Your task to perform on an android device: turn off airplane mode Image 0: 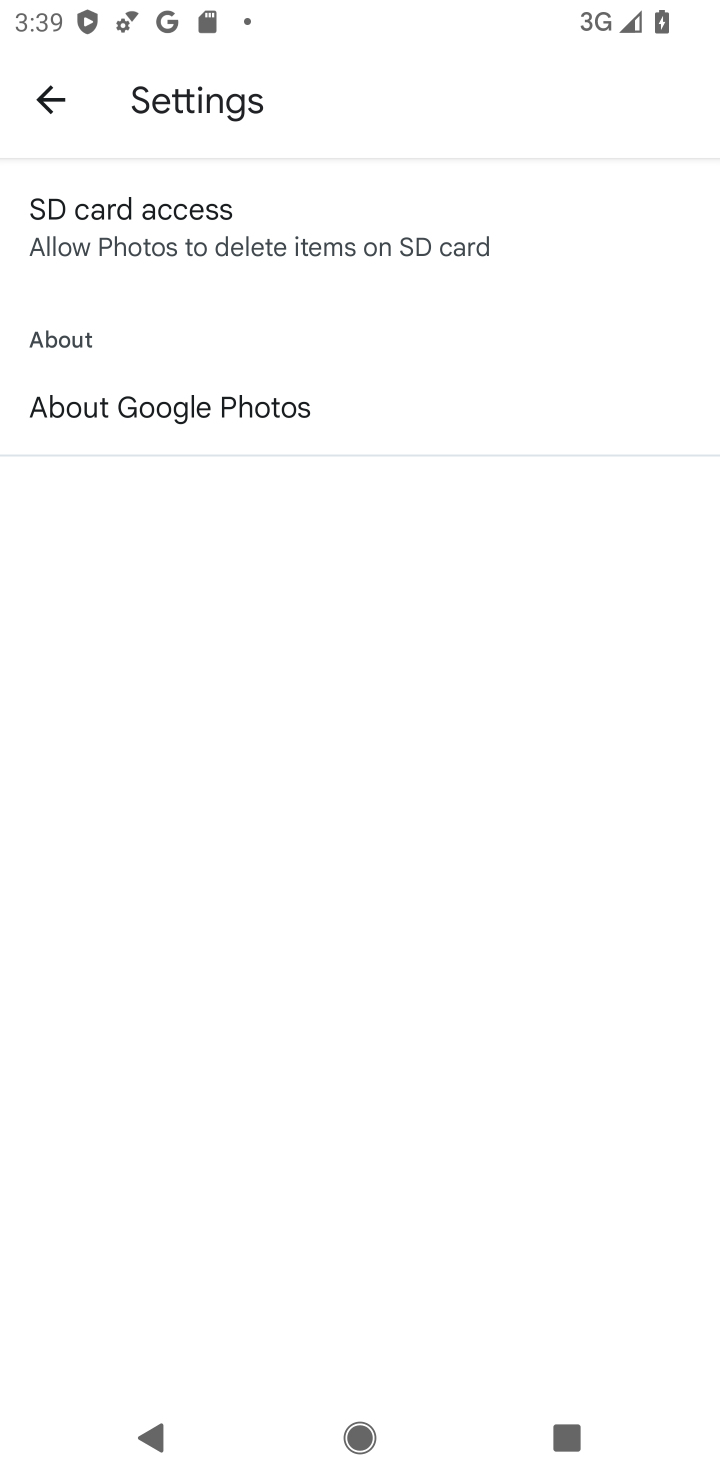
Step 0: press home button
Your task to perform on an android device: turn off airplane mode Image 1: 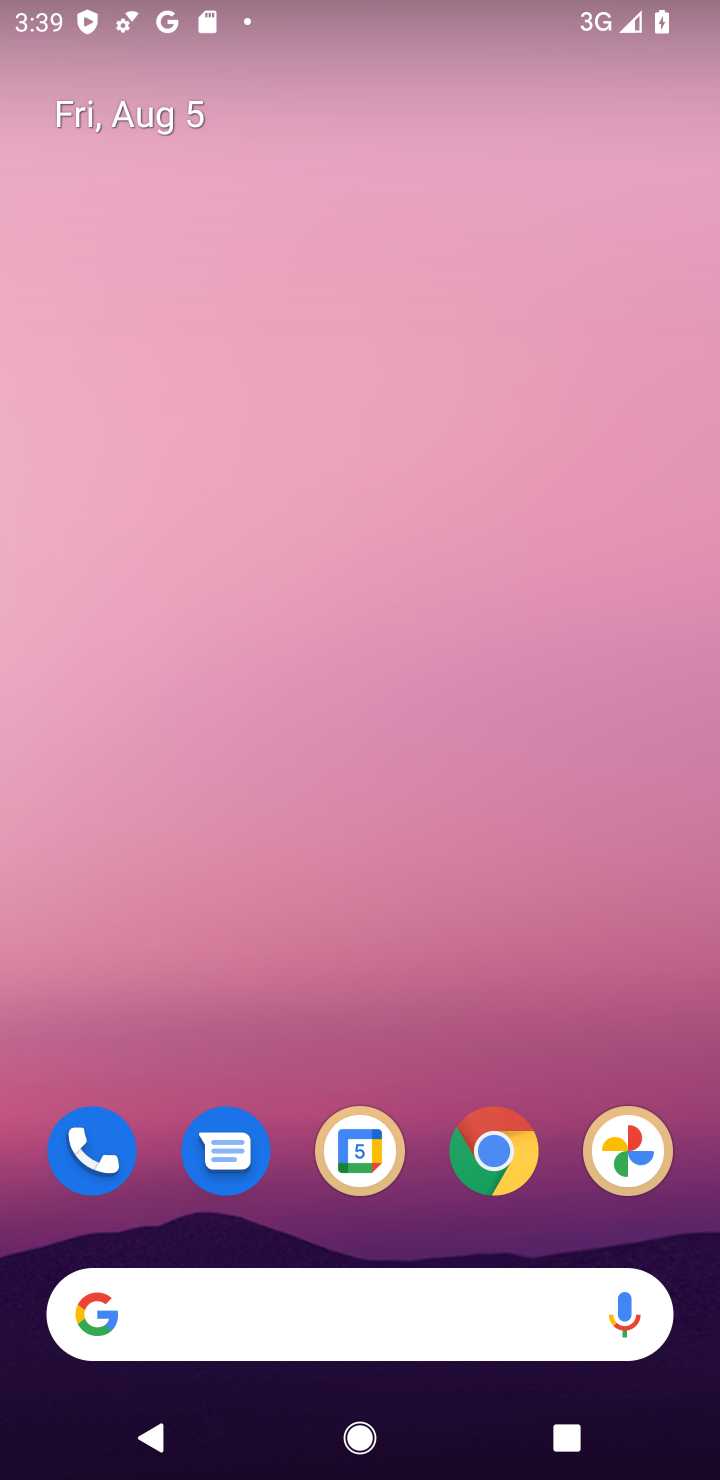
Step 1: drag from (421, 1029) to (288, 322)
Your task to perform on an android device: turn off airplane mode Image 2: 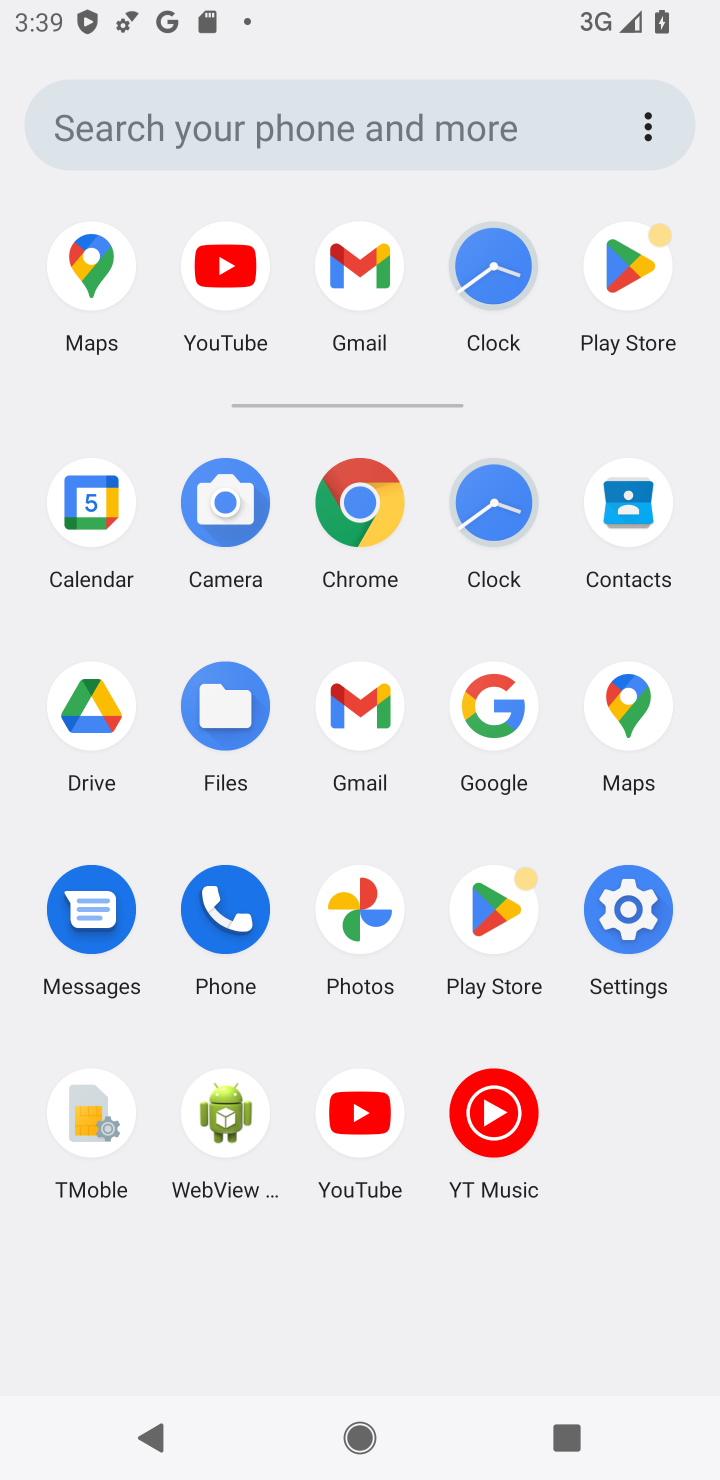
Step 2: click (654, 923)
Your task to perform on an android device: turn off airplane mode Image 3: 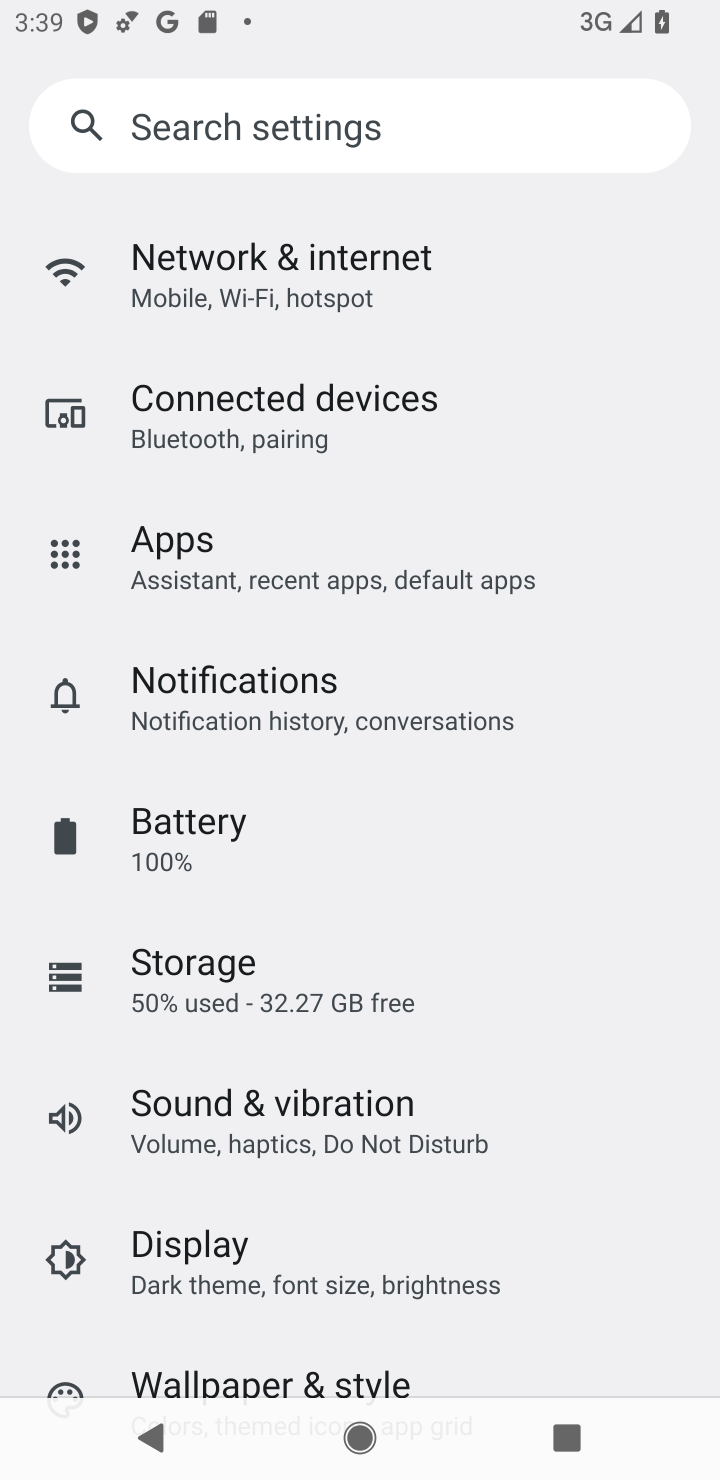
Step 3: click (326, 235)
Your task to perform on an android device: turn off airplane mode Image 4: 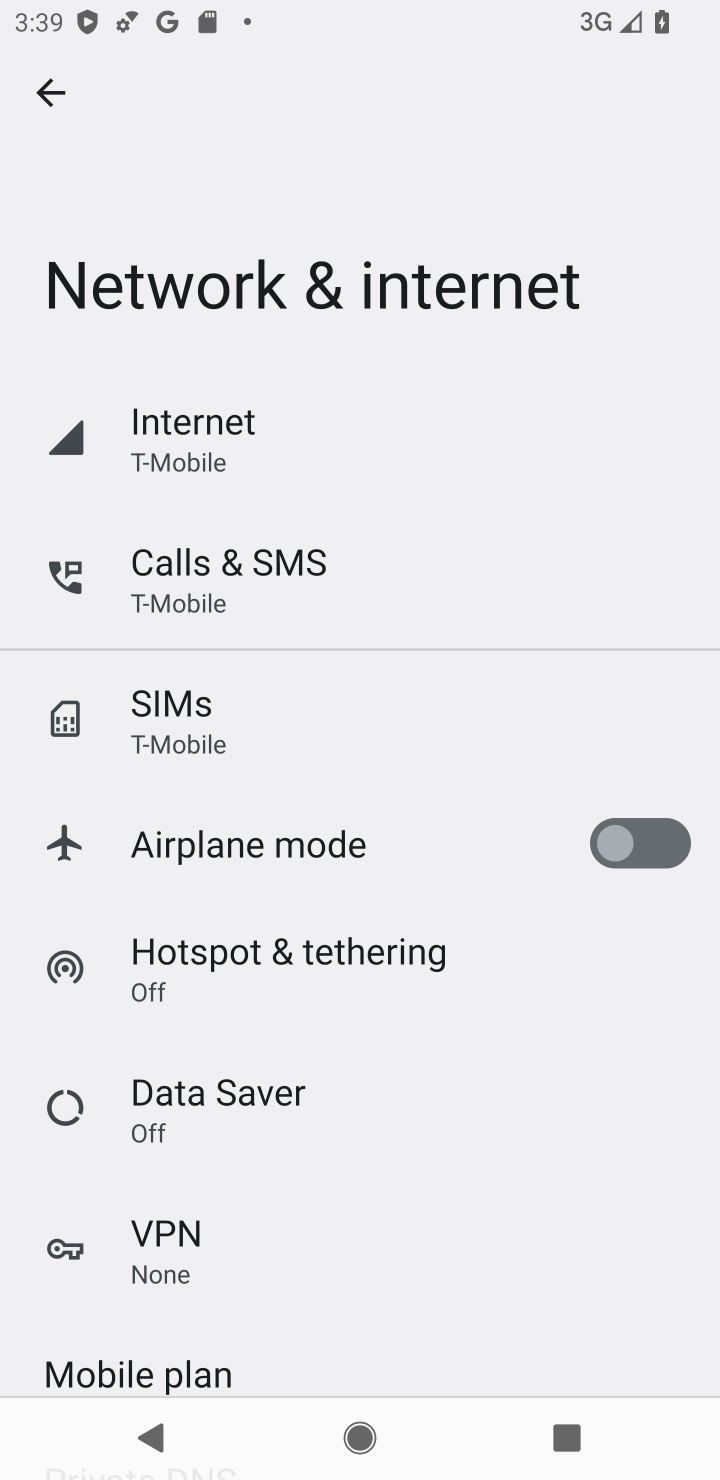
Step 4: task complete